Your task to perform on an android device: Go to battery settings Image 0: 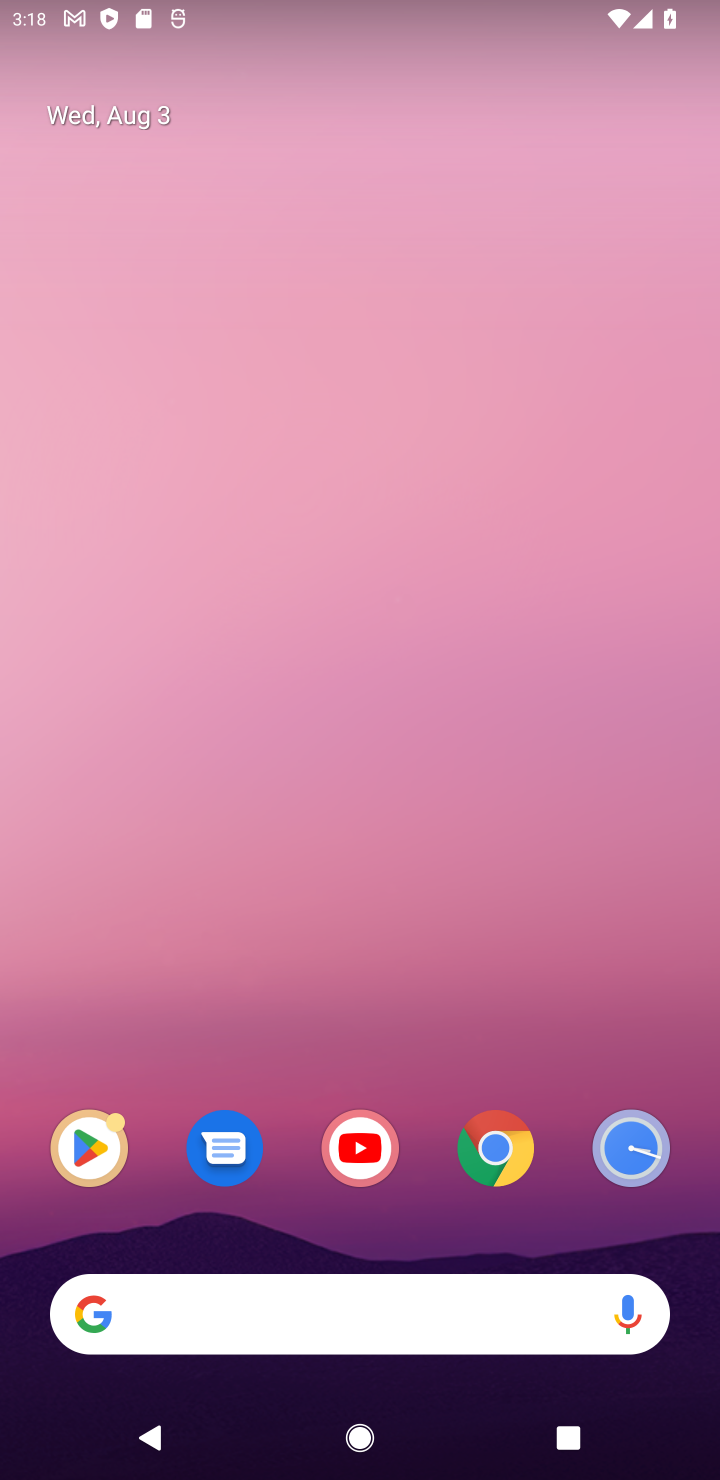
Step 0: drag from (427, 1067) to (482, 151)
Your task to perform on an android device: Go to battery settings Image 1: 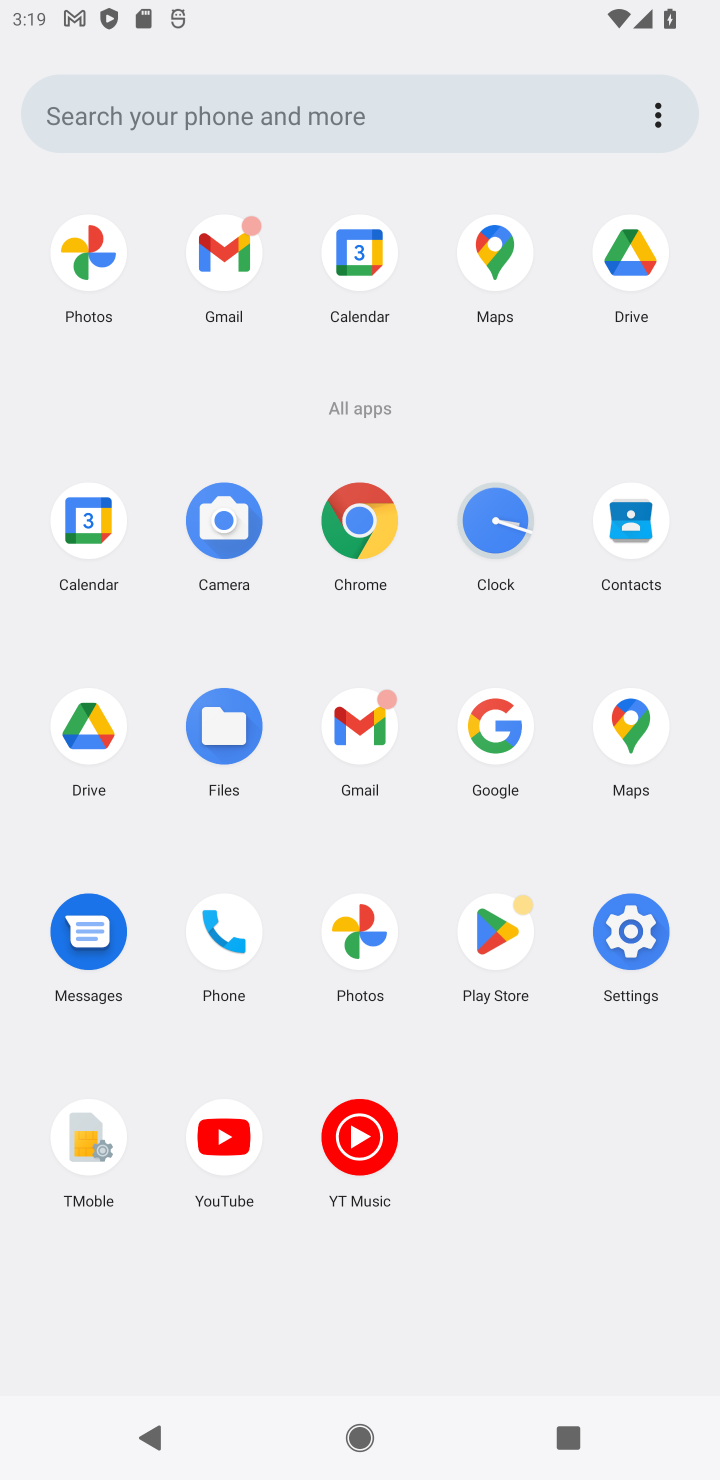
Step 1: click (632, 941)
Your task to perform on an android device: Go to battery settings Image 2: 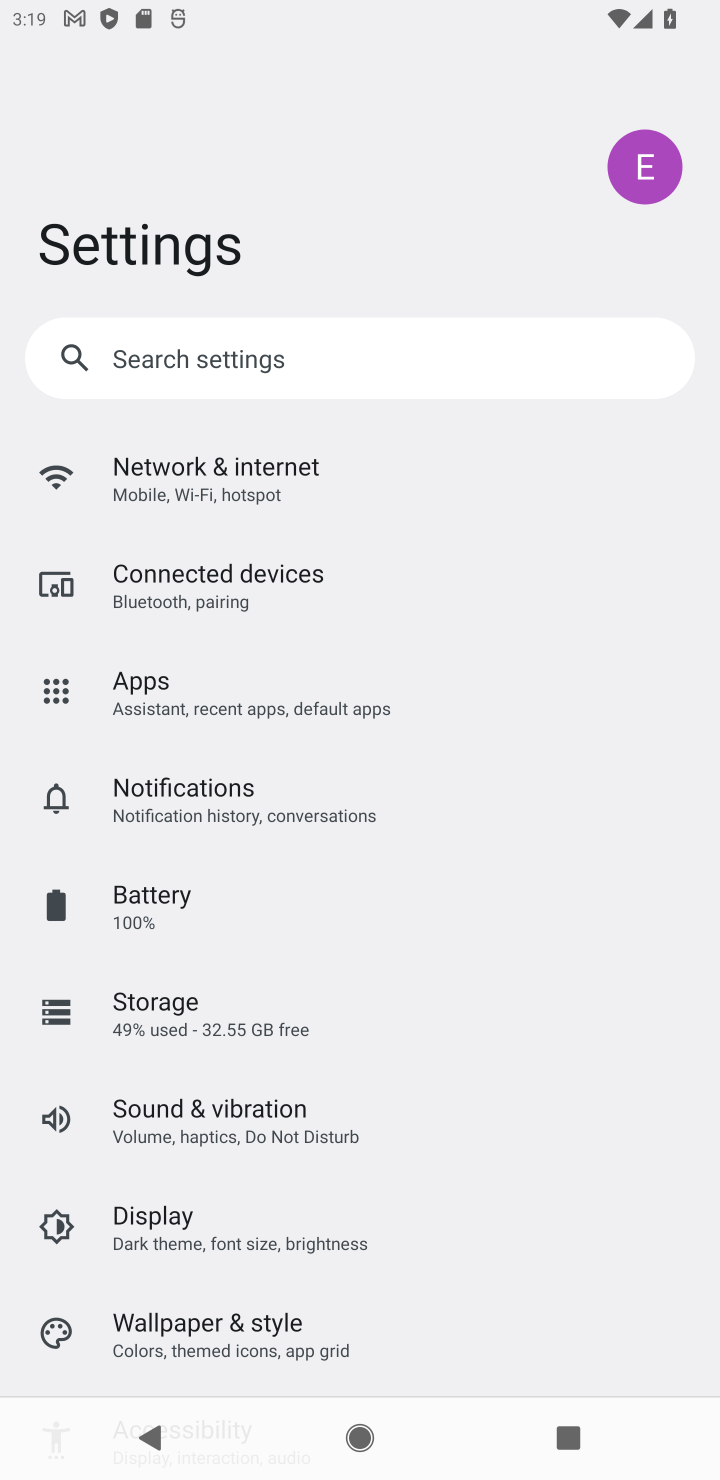
Step 2: drag from (500, 1259) to (553, 760)
Your task to perform on an android device: Go to battery settings Image 3: 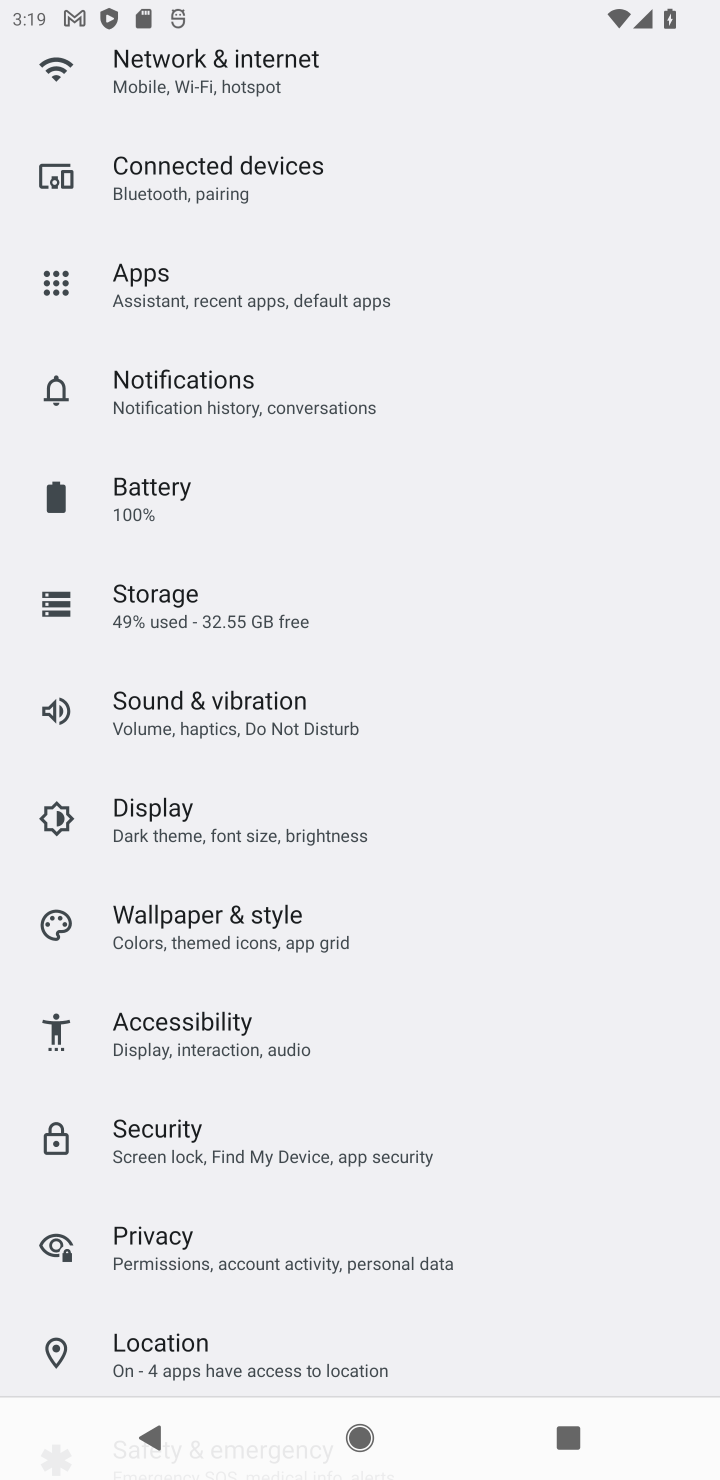
Step 3: drag from (572, 1118) to (556, 756)
Your task to perform on an android device: Go to battery settings Image 4: 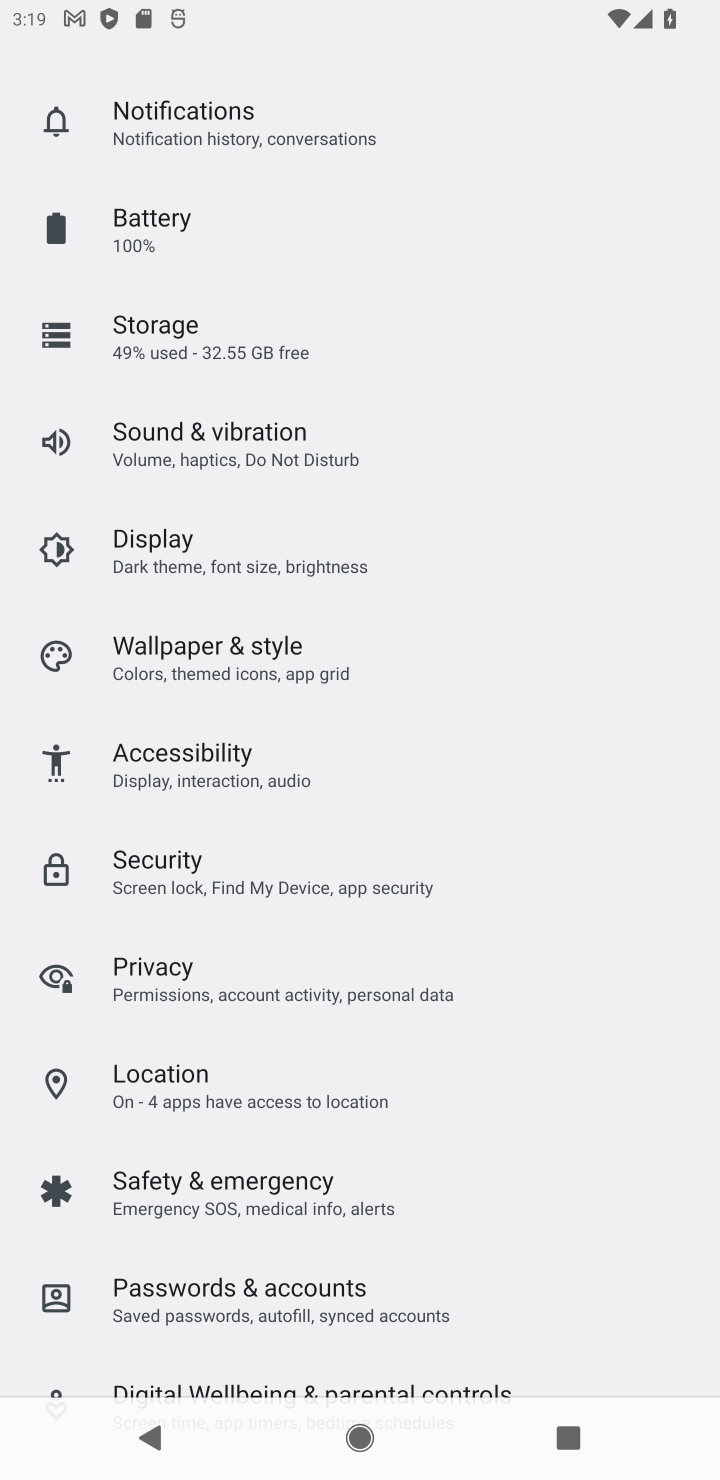
Step 4: drag from (585, 1159) to (607, 826)
Your task to perform on an android device: Go to battery settings Image 5: 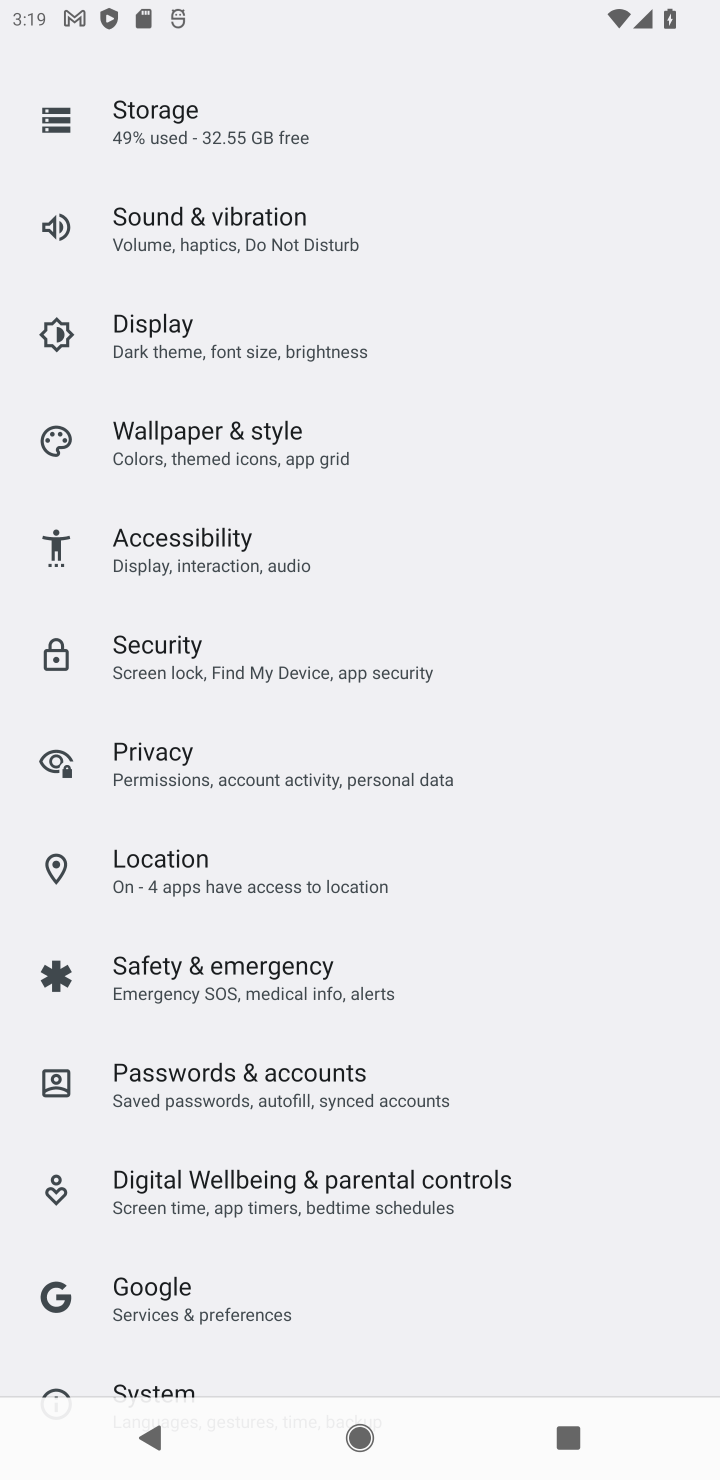
Step 5: drag from (567, 1227) to (605, 808)
Your task to perform on an android device: Go to battery settings Image 6: 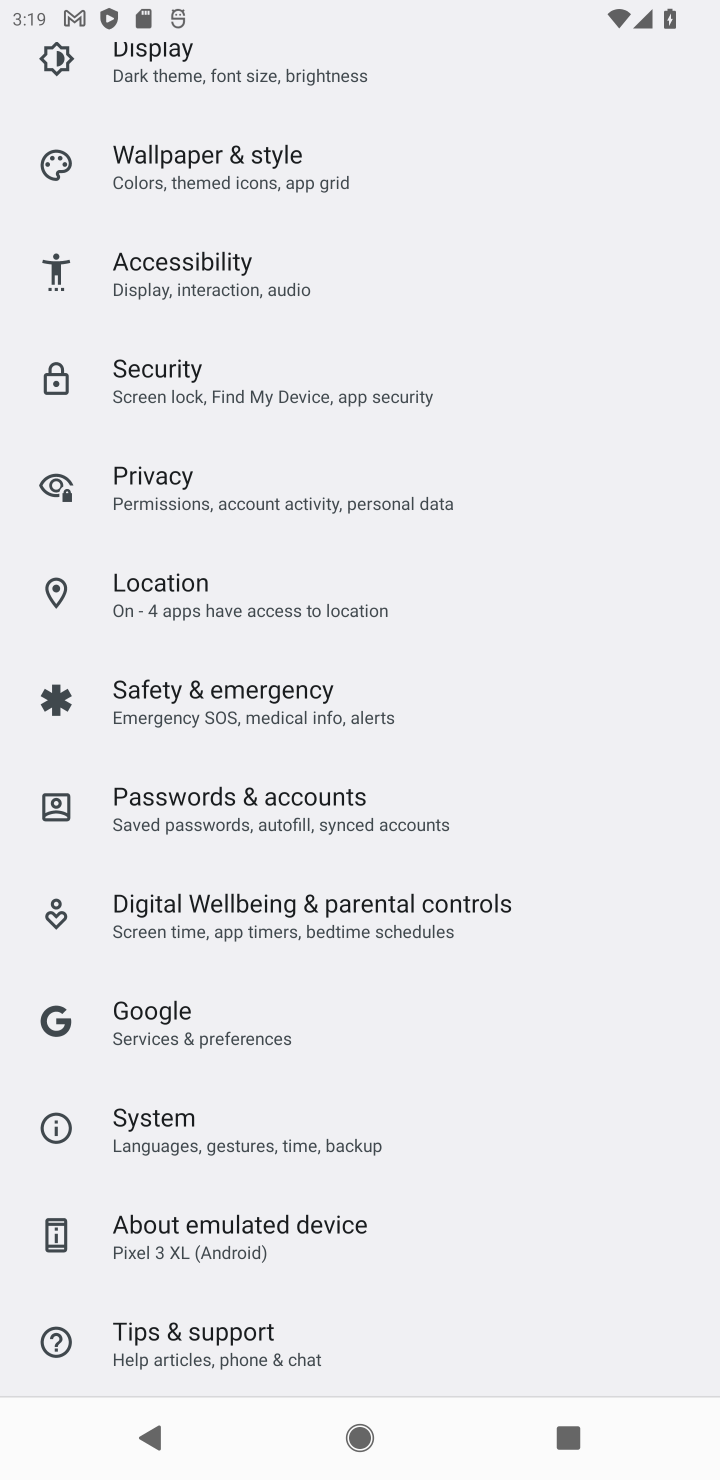
Step 6: drag from (580, 400) to (580, 966)
Your task to perform on an android device: Go to battery settings Image 7: 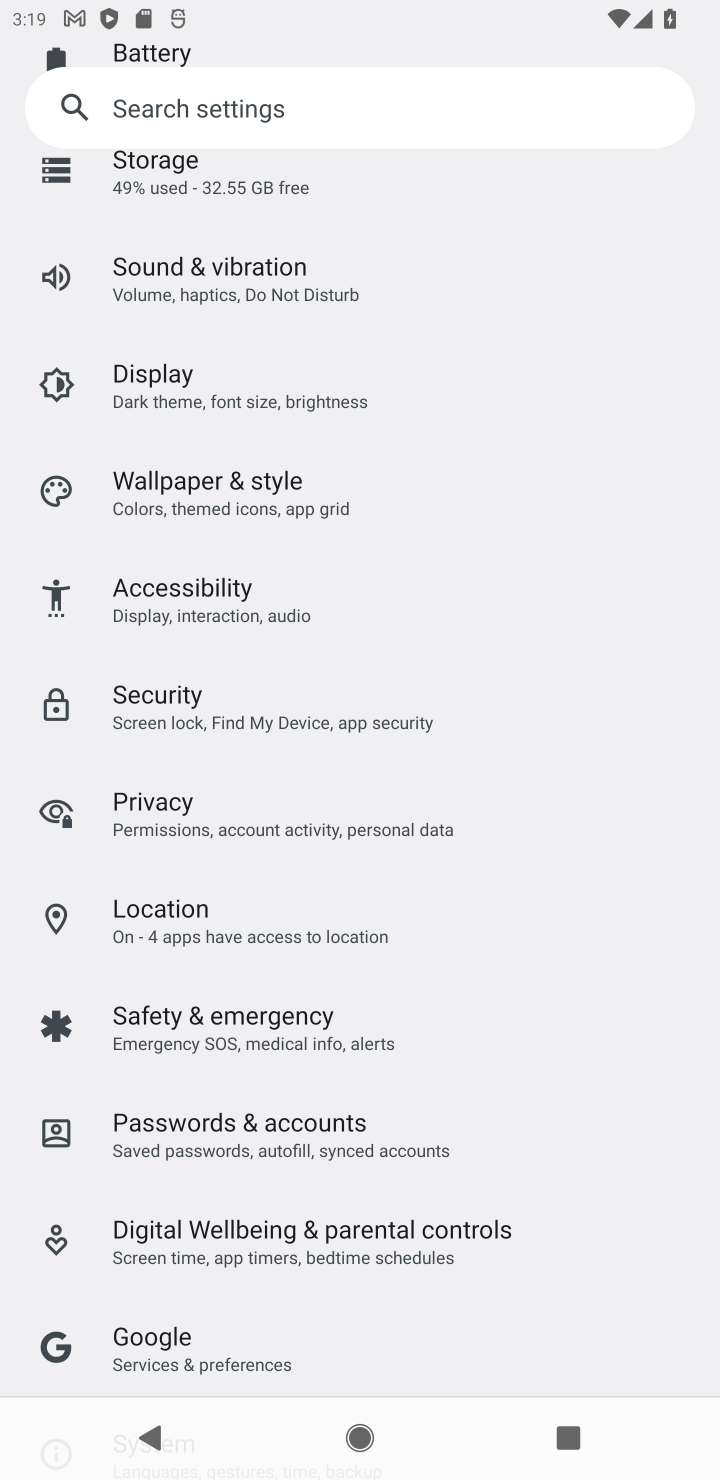
Step 7: drag from (562, 254) to (583, 817)
Your task to perform on an android device: Go to battery settings Image 8: 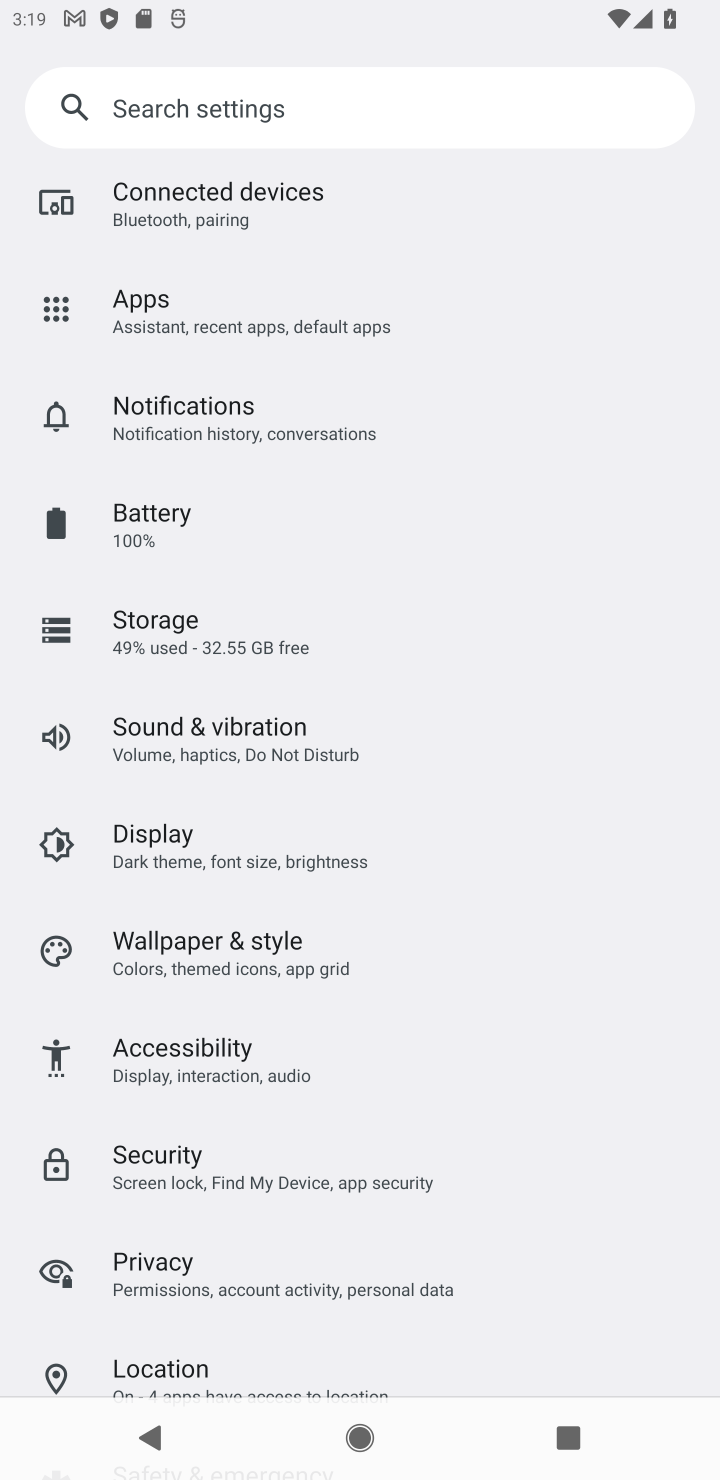
Step 8: click (346, 546)
Your task to perform on an android device: Go to battery settings Image 9: 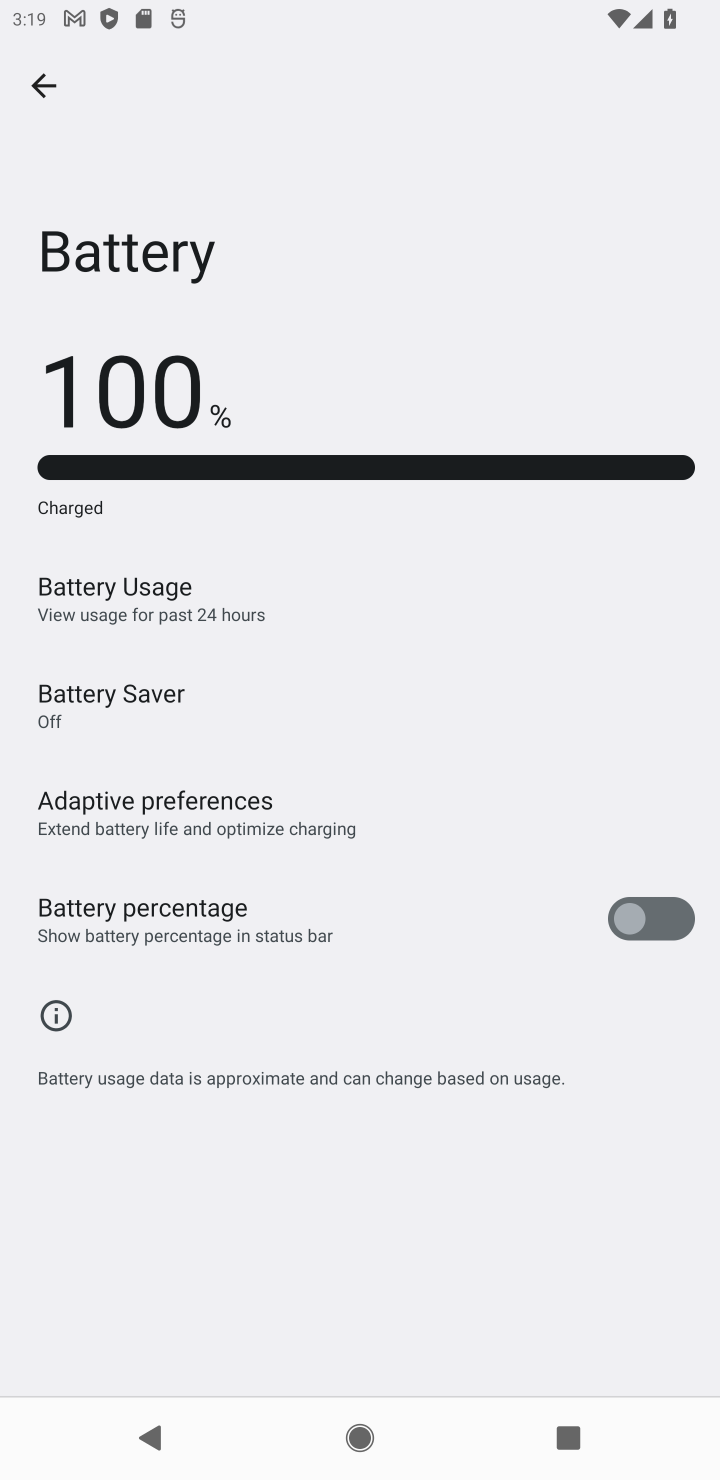
Step 9: task complete